Your task to perform on an android device: Open Yahoo.com Image 0: 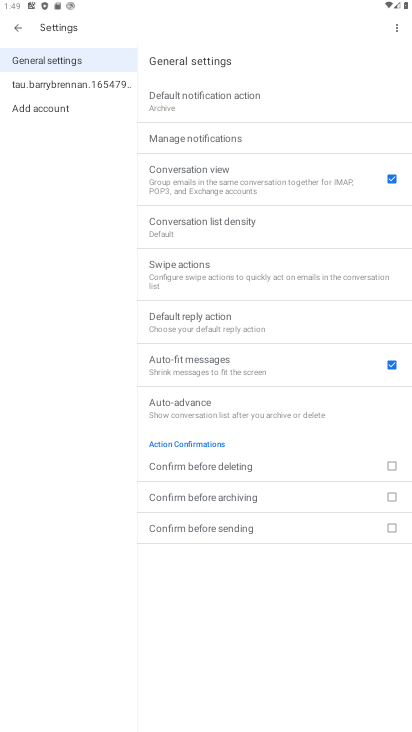
Step 0: press home button
Your task to perform on an android device: Open Yahoo.com Image 1: 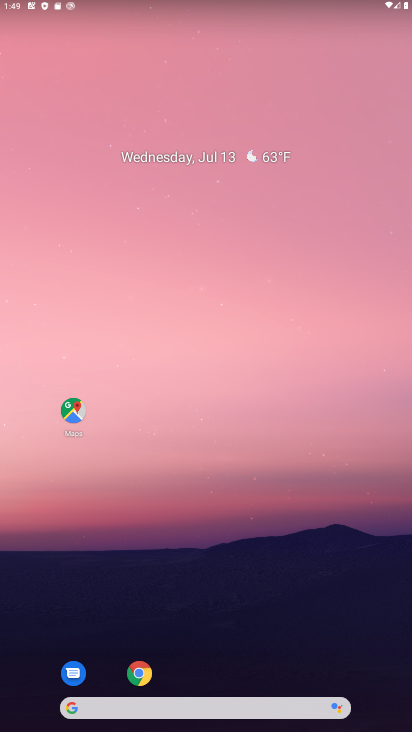
Step 1: drag from (310, 654) to (303, 248)
Your task to perform on an android device: Open Yahoo.com Image 2: 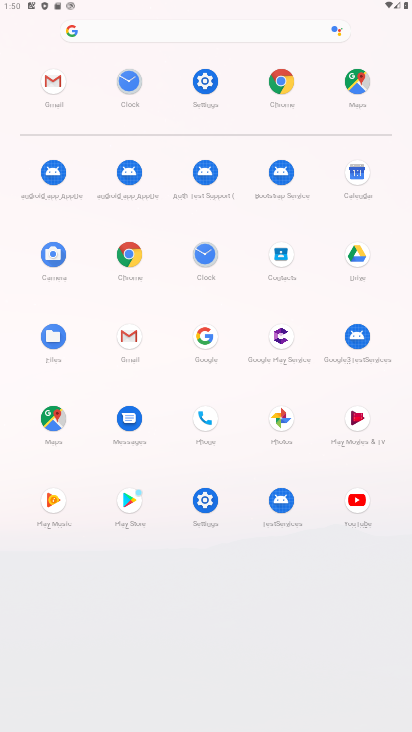
Step 2: click (272, 80)
Your task to perform on an android device: Open Yahoo.com Image 3: 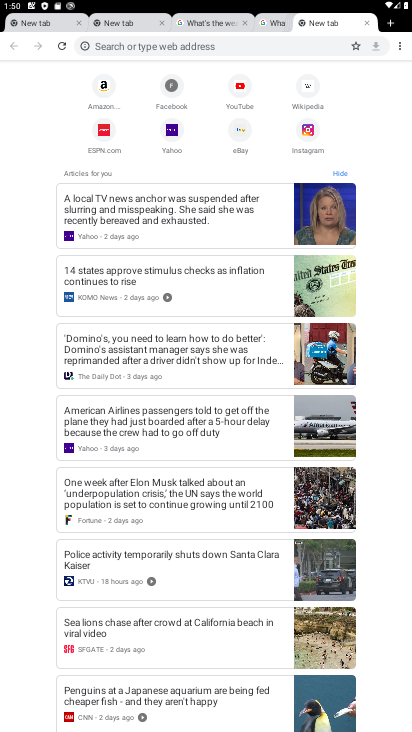
Step 3: click (165, 132)
Your task to perform on an android device: Open Yahoo.com Image 4: 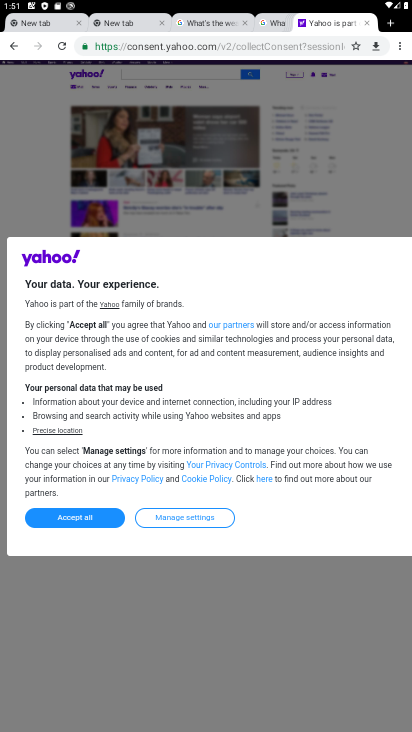
Step 4: task complete